Your task to perform on an android device: Look up the best rated power drills on Lowes.com Image 0: 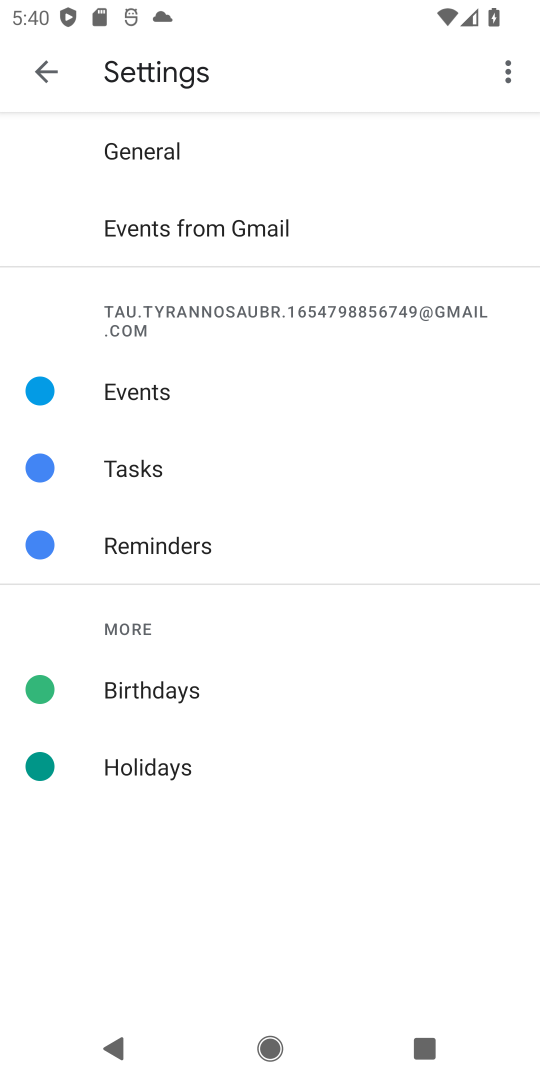
Step 0: press home button
Your task to perform on an android device: Look up the best rated power drills on Lowes.com Image 1: 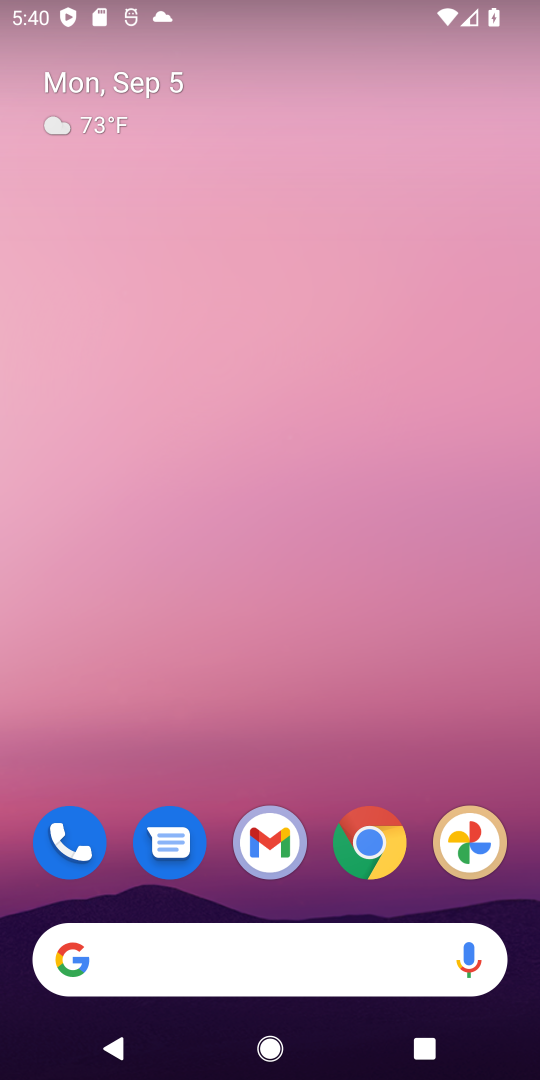
Step 1: click (371, 845)
Your task to perform on an android device: Look up the best rated power drills on Lowes.com Image 2: 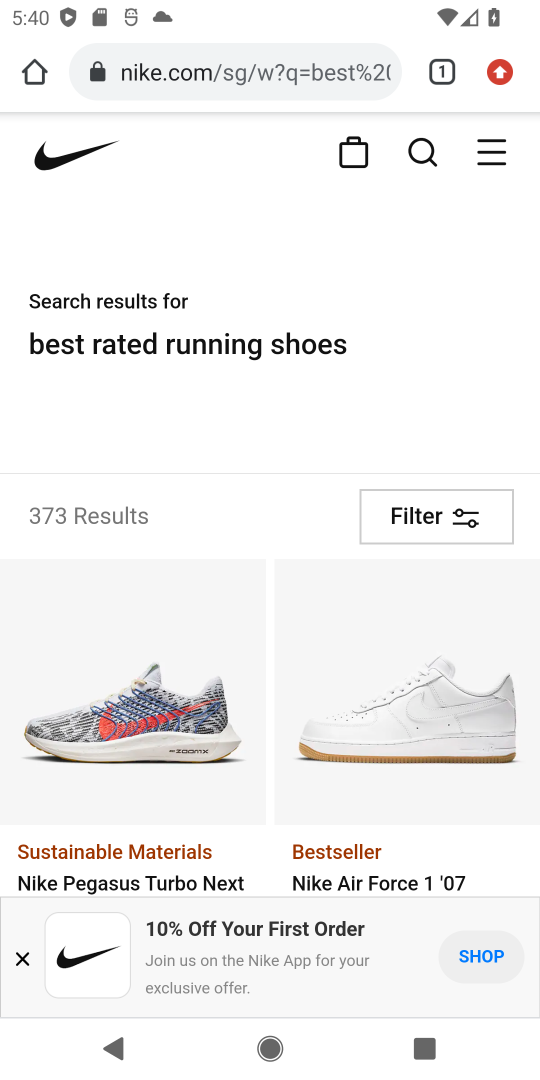
Step 2: click (281, 59)
Your task to perform on an android device: Look up the best rated power drills on Lowes.com Image 3: 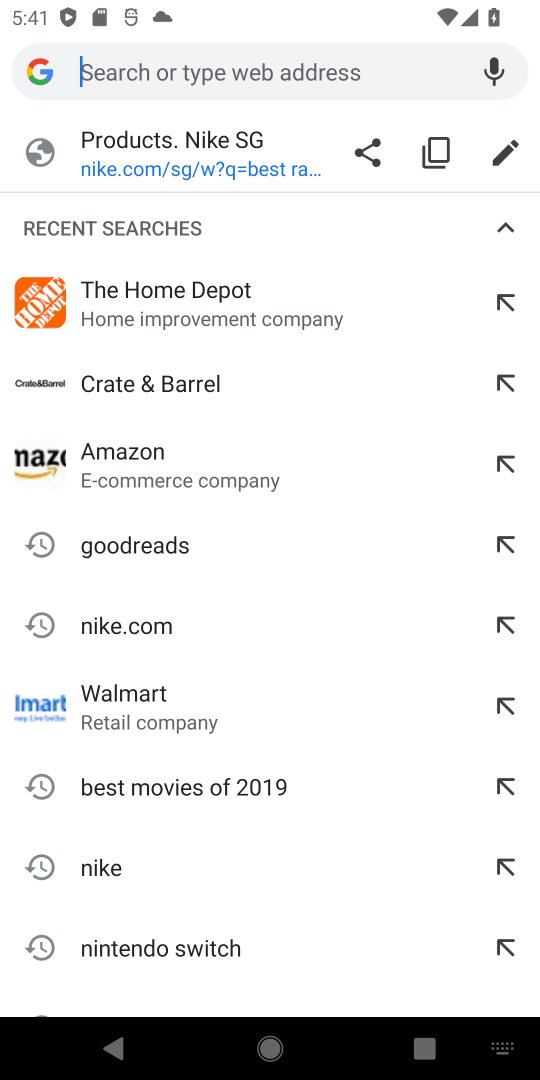
Step 3: type "Lowes.com"
Your task to perform on an android device: Look up the best rated power drills on Lowes.com Image 4: 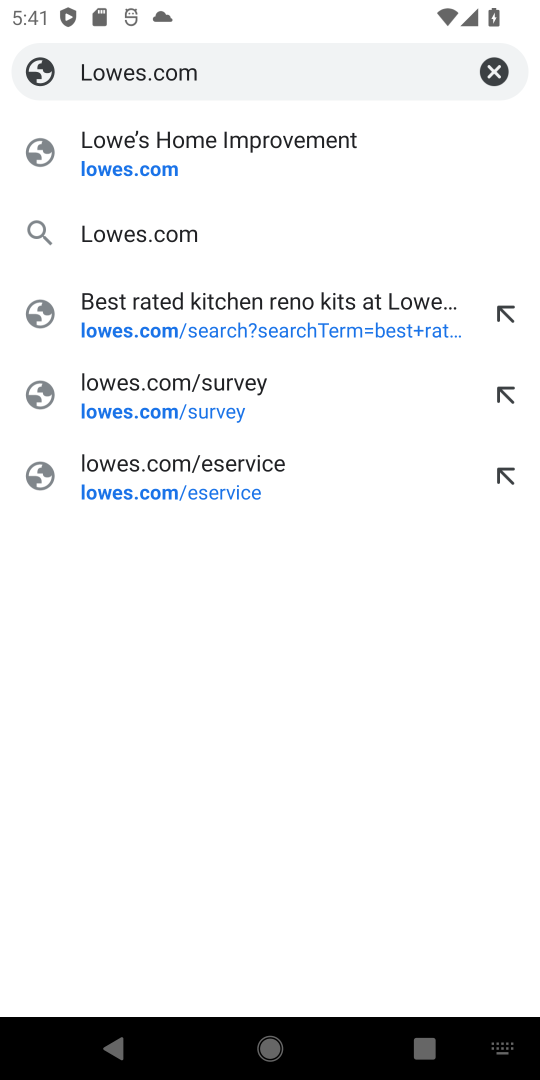
Step 4: click (119, 239)
Your task to perform on an android device: Look up the best rated power drills on Lowes.com Image 5: 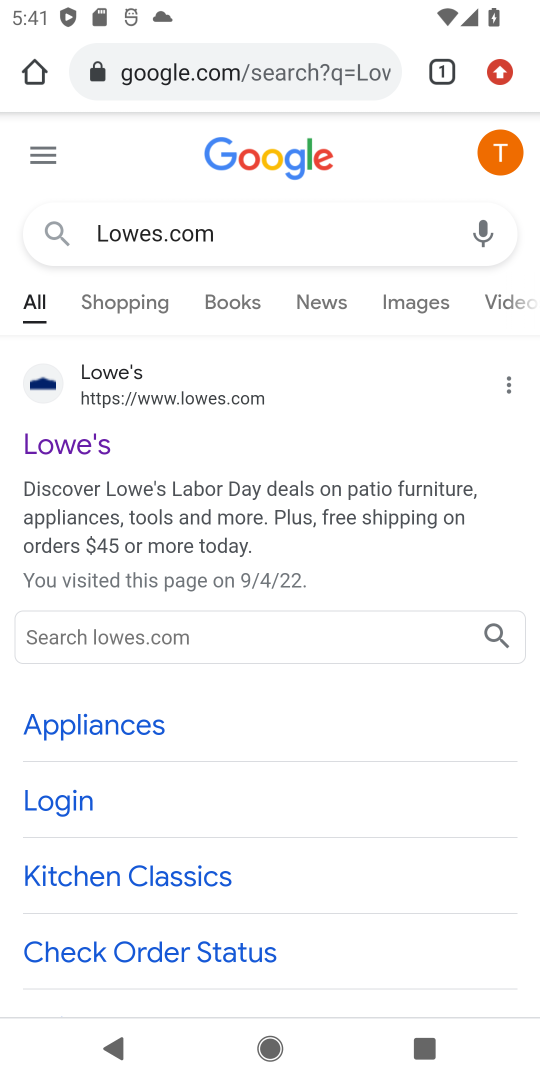
Step 5: click (116, 452)
Your task to perform on an android device: Look up the best rated power drills on Lowes.com Image 6: 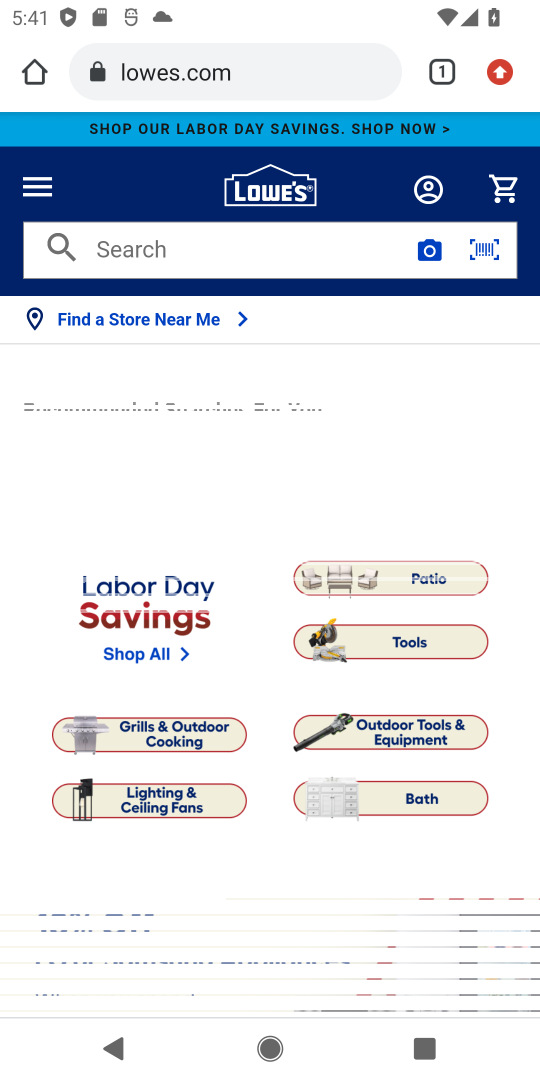
Step 6: click (209, 256)
Your task to perform on an android device: Look up the best rated power drills on Lowes.com Image 7: 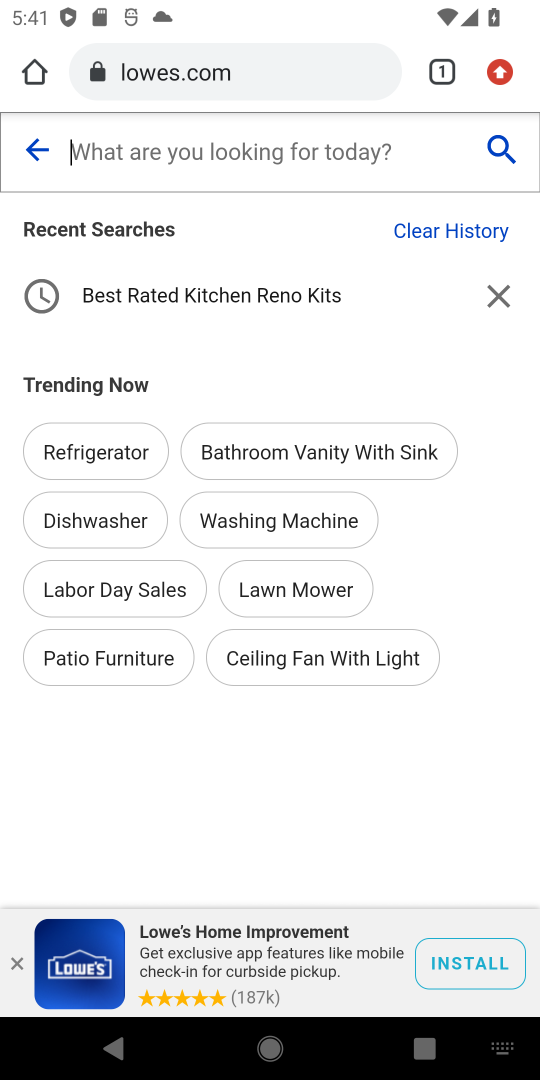
Step 7: type "best rated power drills"
Your task to perform on an android device: Look up the best rated power drills on Lowes.com Image 8: 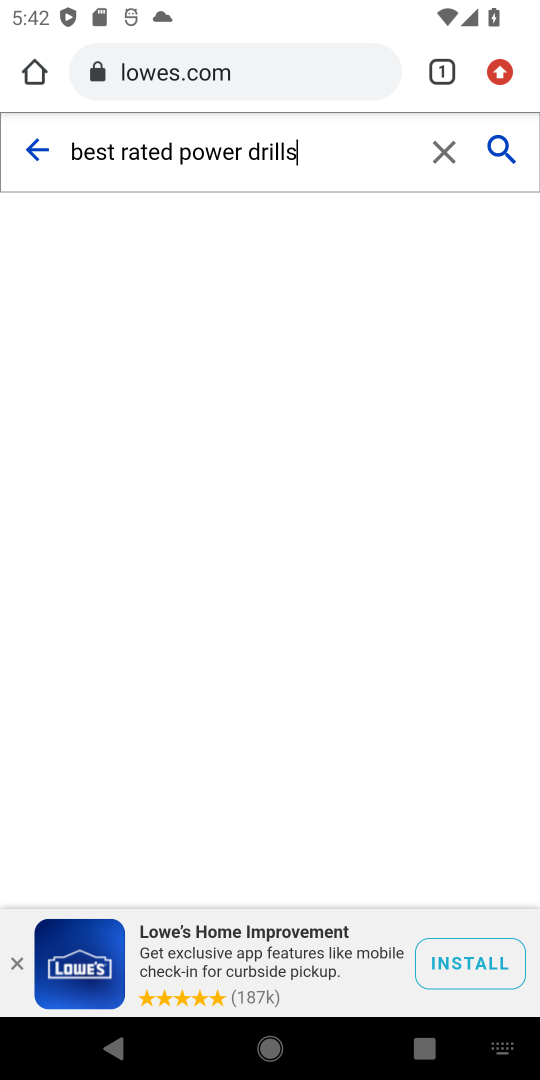
Step 8: click (494, 150)
Your task to perform on an android device: Look up the best rated power drills on Lowes.com Image 9: 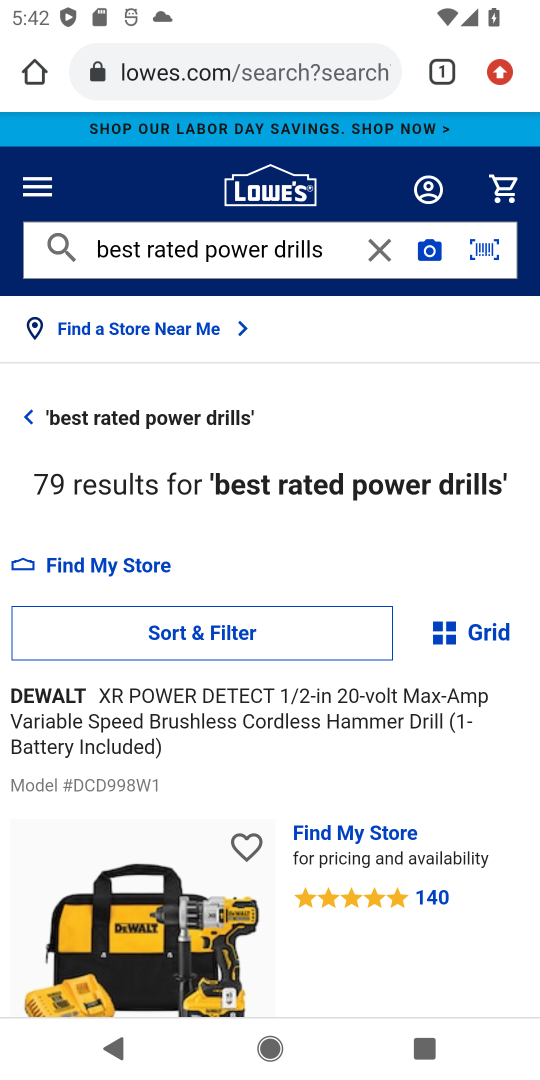
Step 9: task complete